Your task to perform on an android device: delete location history Image 0: 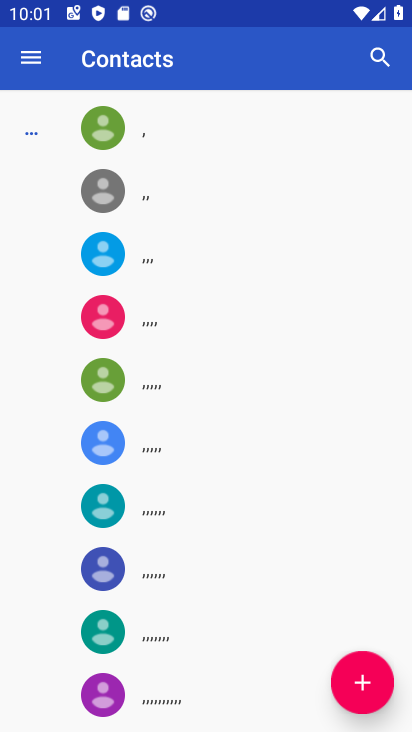
Step 0: press home button
Your task to perform on an android device: delete location history Image 1: 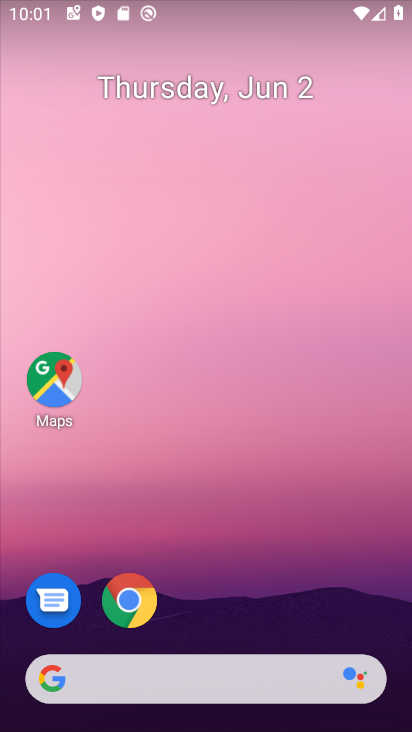
Step 1: drag from (155, 725) to (63, 97)
Your task to perform on an android device: delete location history Image 2: 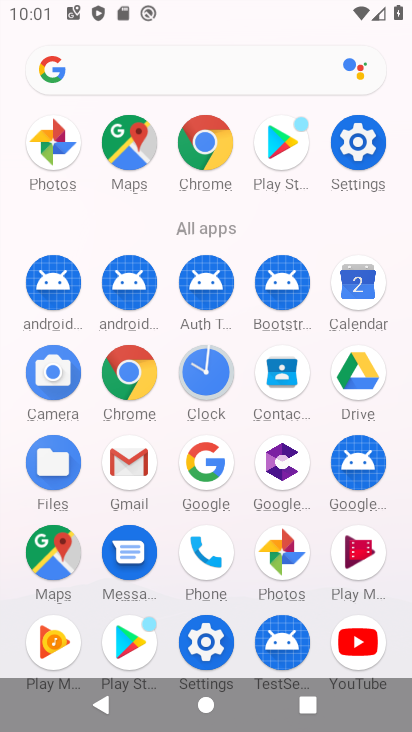
Step 2: click (347, 169)
Your task to perform on an android device: delete location history Image 3: 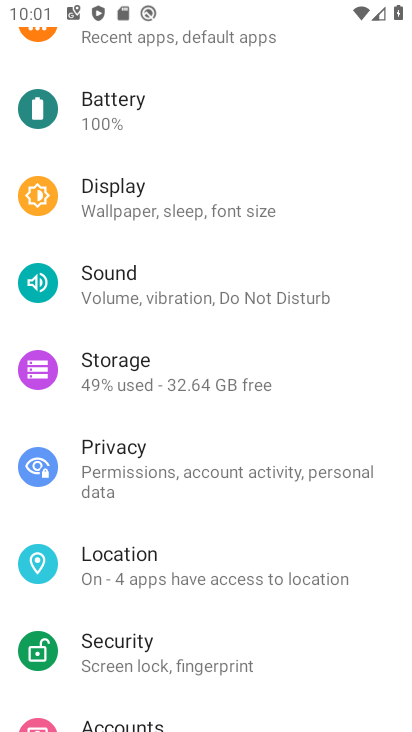
Step 3: click (155, 580)
Your task to perform on an android device: delete location history Image 4: 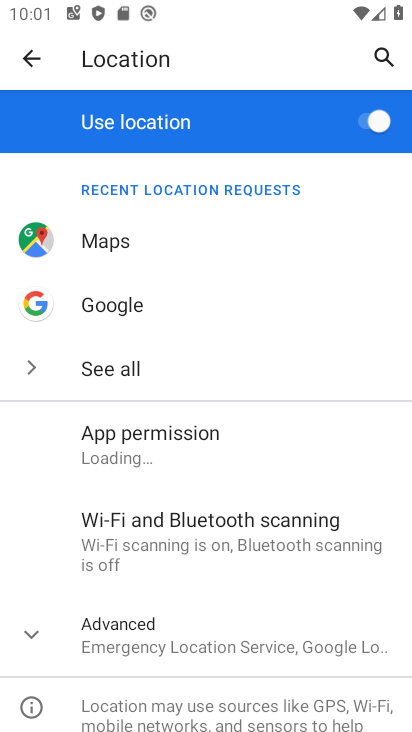
Step 4: click (200, 653)
Your task to perform on an android device: delete location history Image 5: 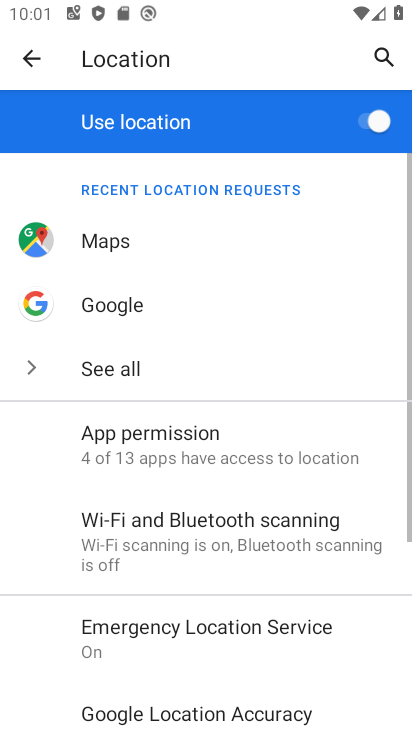
Step 5: drag from (219, 665) to (236, 342)
Your task to perform on an android device: delete location history Image 6: 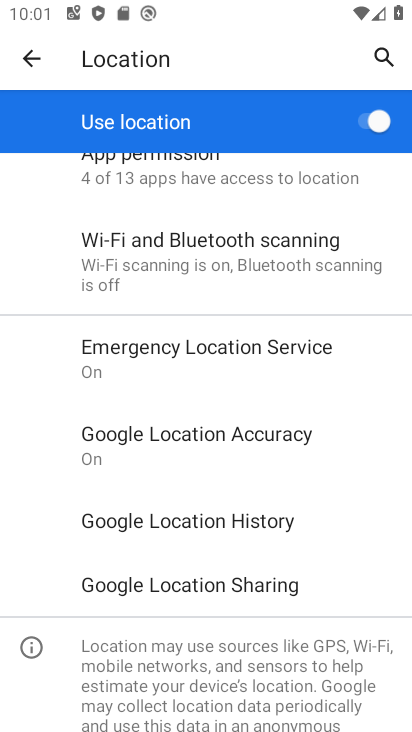
Step 6: click (206, 517)
Your task to perform on an android device: delete location history Image 7: 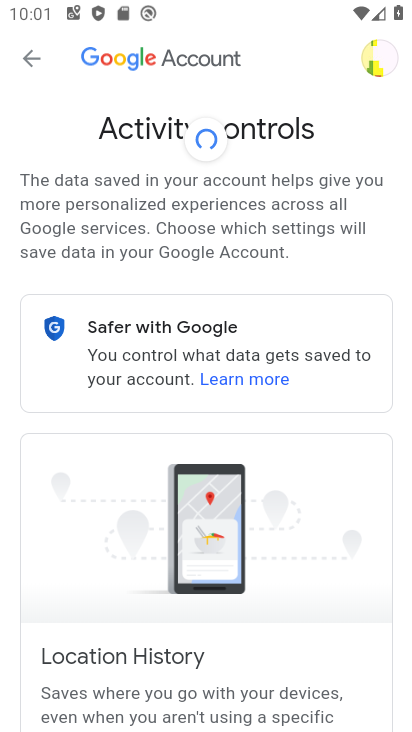
Step 7: drag from (276, 581) to (317, 261)
Your task to perform on an android device: delete location history Image 8: 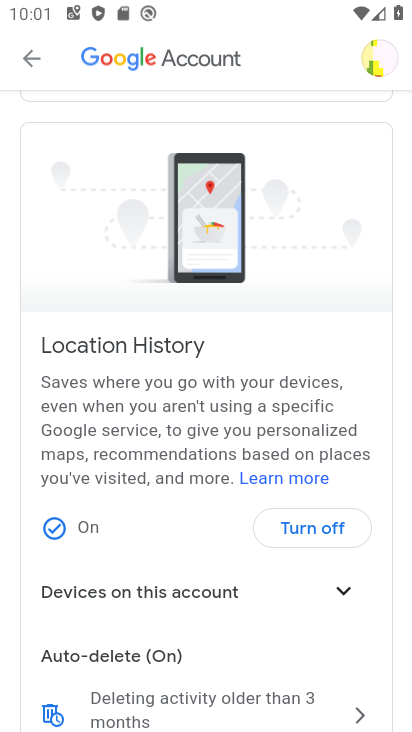
Step 8: click (220, 705)
Your task to perform on an android device: delete location history Image 9: 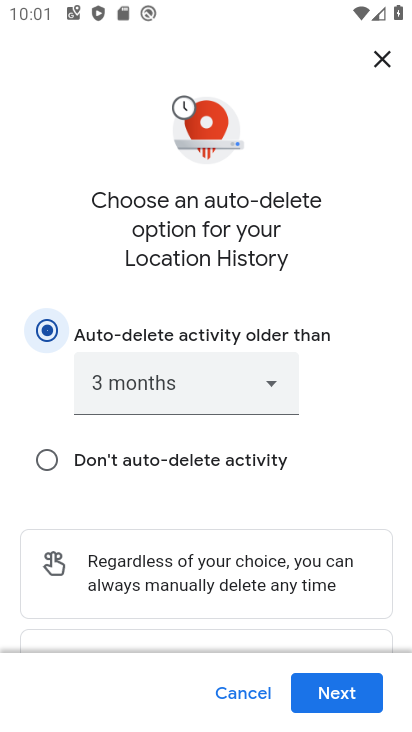
Step 9: click (352, 706)
Your task to perform on an android device: delete location history Image 10: 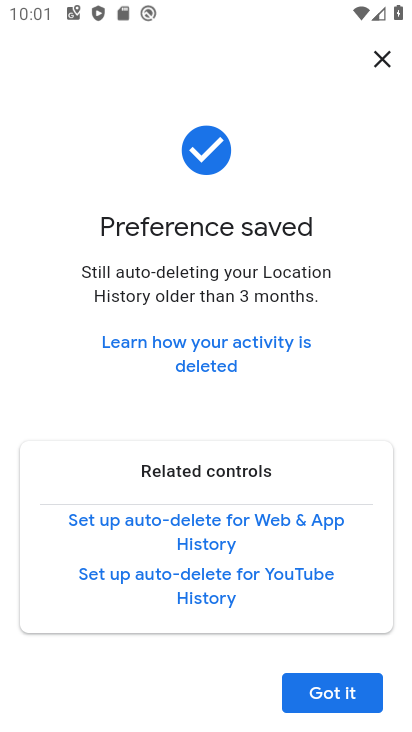
Step 10: click (358, 713)
Your task to perform on an android device: delete location history Image 11: 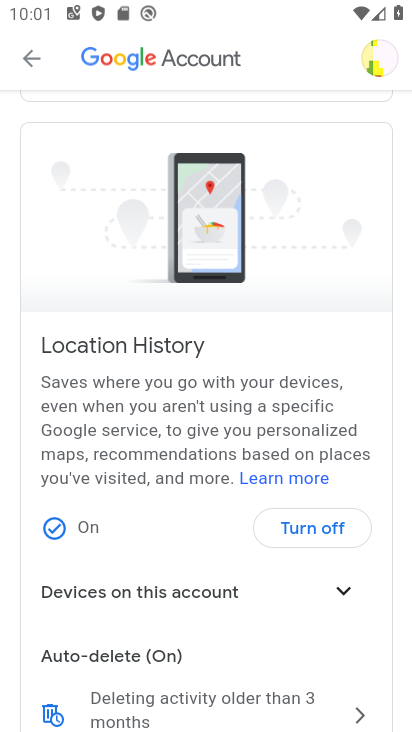
Step 11: task complete